Your task to perform on an android device: Add usb-b to the cart on ebay.com, then select checkout. Image 0: 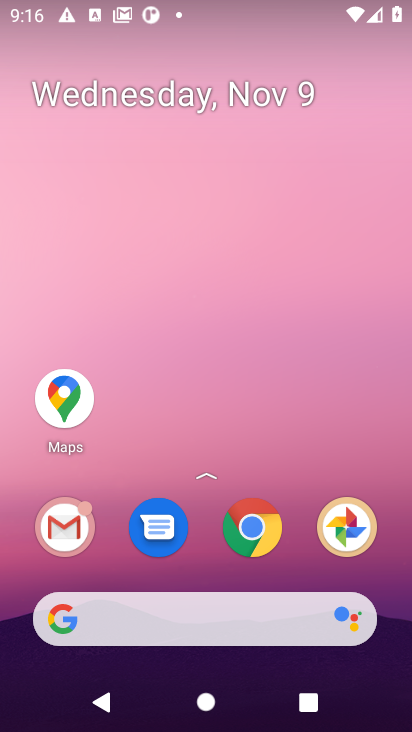
Step 0: click (248, 522)
Your task to perform on an android device: Add usb-b to the cart on ebay.com, then select checkout. Image 1: 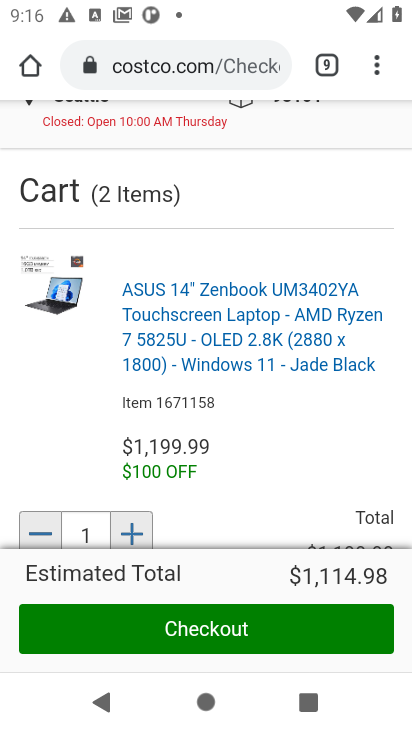
Step 1: click (209, 67)
Your task to perform on an android device: Add usb-b to the cart on ebay.com, then select checkout. Image 2: 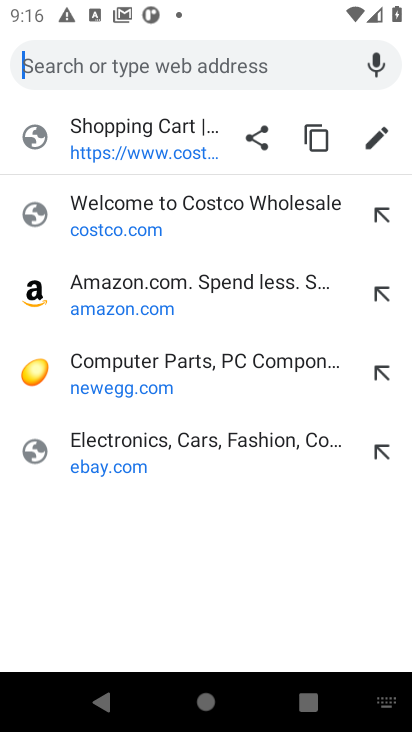
Step 2: click (105, 450)
Your task to perform on an android device: Add usb-b to the cart on ebay.com, then select checkout. Image 3: 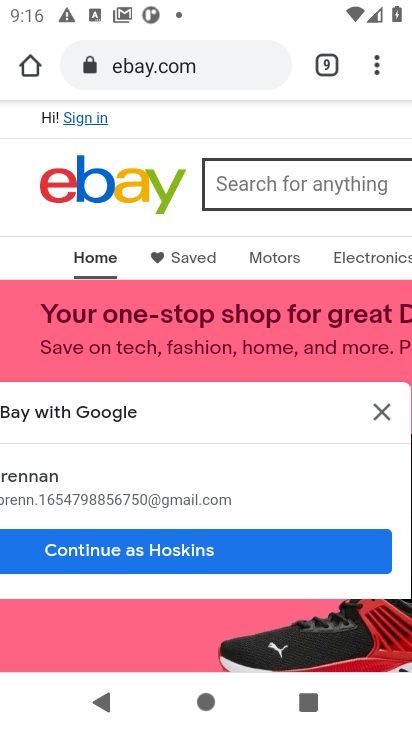
Step 3: click (258, 190)
Your task to perform on an android device: Add usb-b to the cart on ebay.com, then select checkout. Image 4: 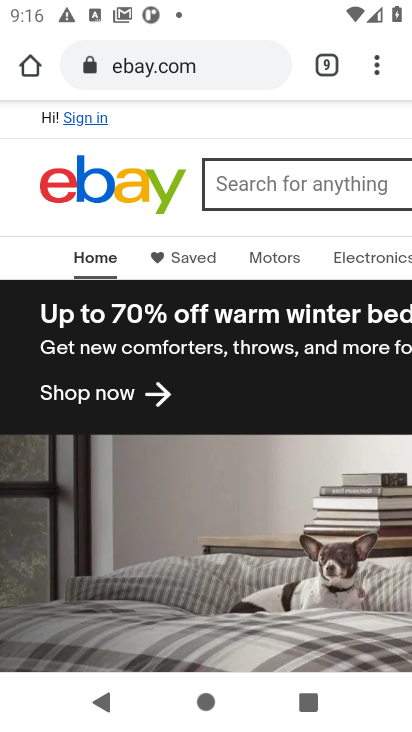
Step 4: type "usb-b"
Your task to perform on an android device: Add usb-b to the cart on ebay.com, then select checkout. Image 5: 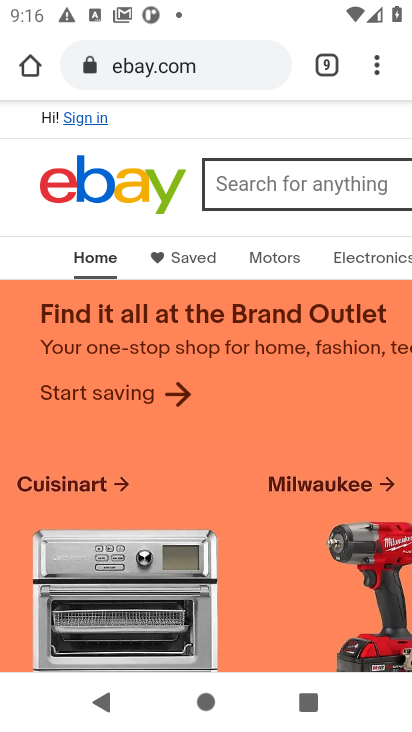
Step 5: click (242, 184)
Your task to perform on an android device: Add usb-b to the cart on ebay.com, then select checkout. Image 6: 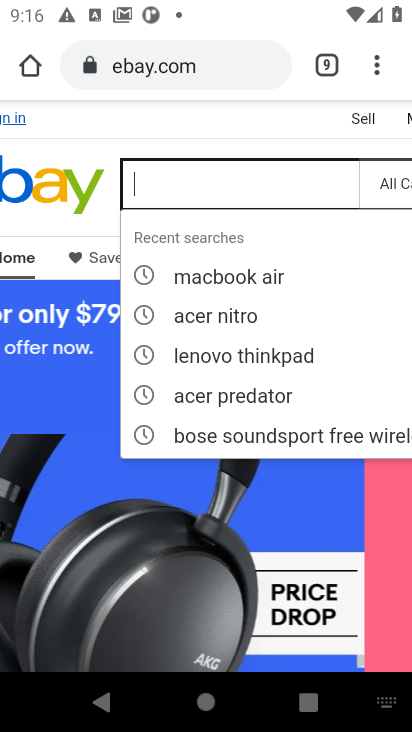
Step 6: type "usb-b"
Your task to perform on an android device: Add usb-b to the cart on ebay.com, then select checkout. Image 7: 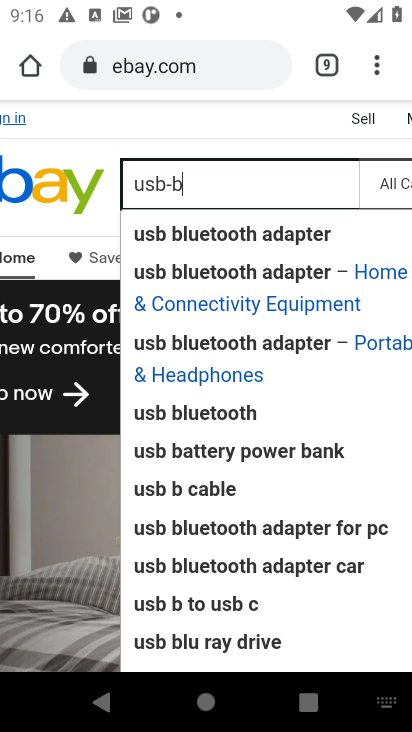
Step 7: drag from (338, 181) to (150, 154)
Your task to perform on an android device: Add usb-b to the cart on ebay.com, then select checkout. Image 8: 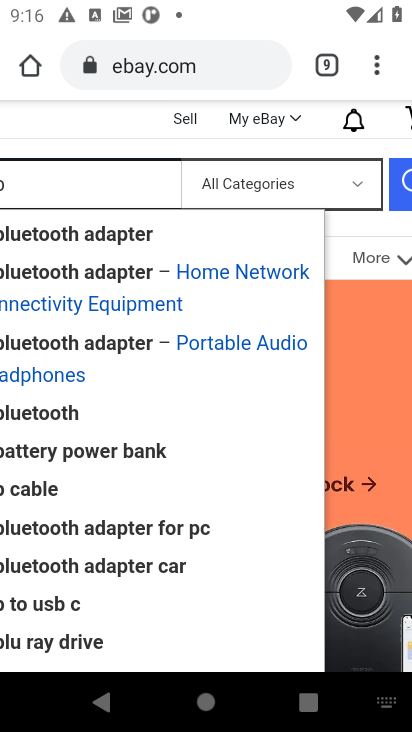
Step 8: click (398, 190)
Your task to perform on an android device: Add usb-b to the cart on ebay.com, then select checkout. Image 9: 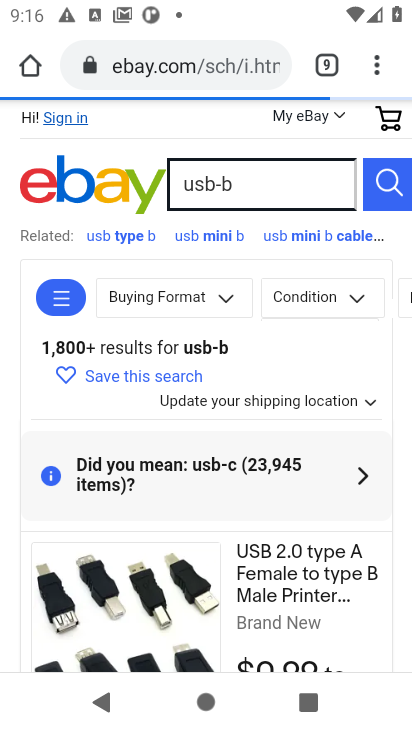
Step 9: drag from (199, 582) to (185, 397)
Your task to perform on an android device: Add usb-b to the cart on ebay.com, then select checkout. Image 10: 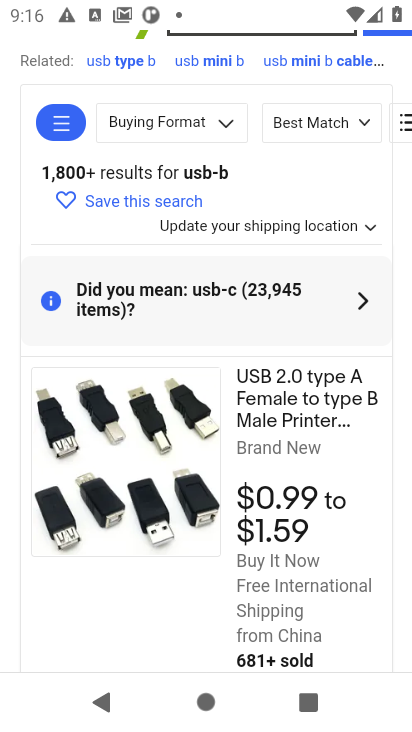
Step 10: click (126, 544)
Your task to perform on an android device: Add usb-b to the cart on ebay.com, then select checkout. Image 11: 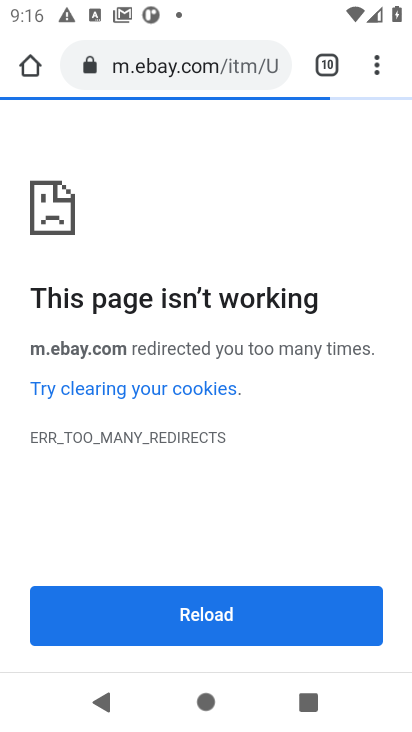
Step 11: task complete